Your task to perform on an android device: check battery use Image 0: 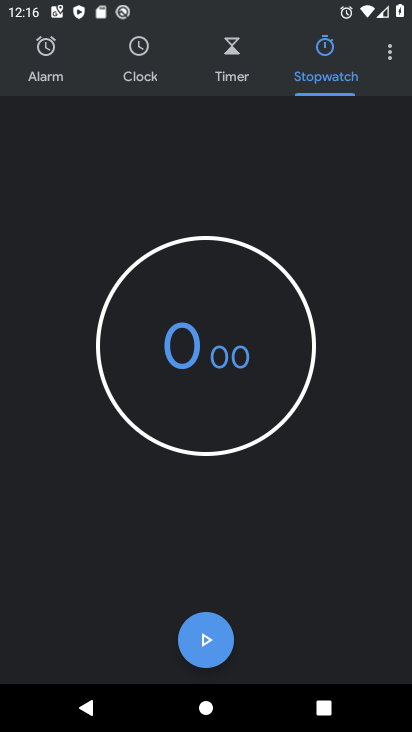
Step 0: press home button
Your task to perform on an android device: check battery use Image 1: 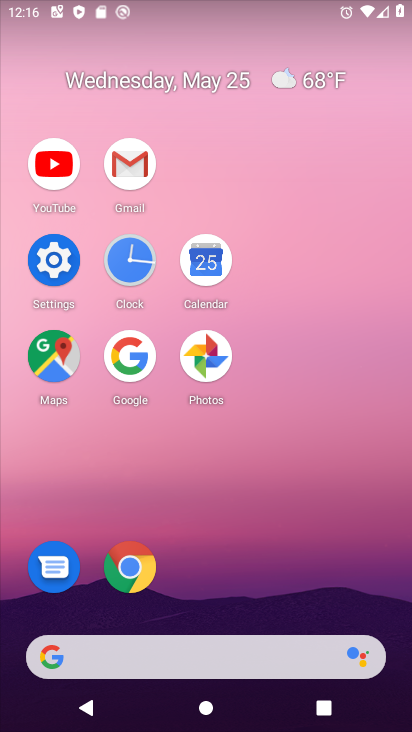
Step 1: click (52, 251)
Your task to perform on an android device: check battery use Image 2: 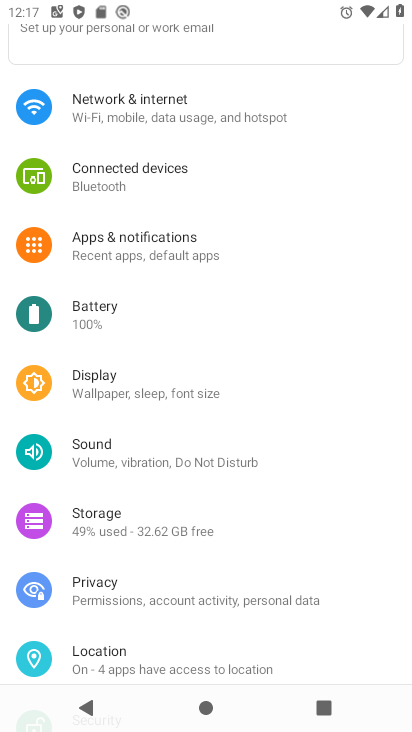
Step 2: drag from (169, 616) to (171, 212)
Your task to perform on an android device: check battery use Image 3: 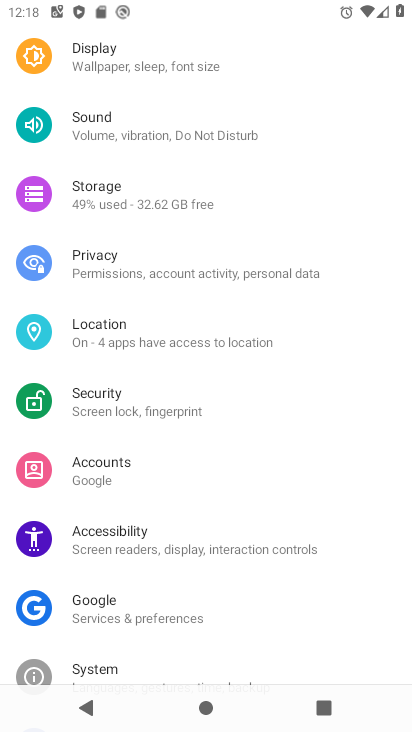
Step 3: drag from (164, 219) to (225, 654)
Your task to perform on an android device: check battery use Image 4: 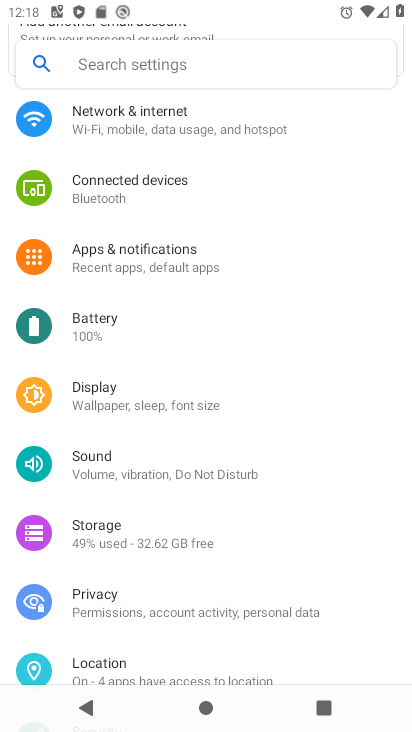
Step 4: click (156, 312)
Your task to perform on an android device: check battery use Image 5: 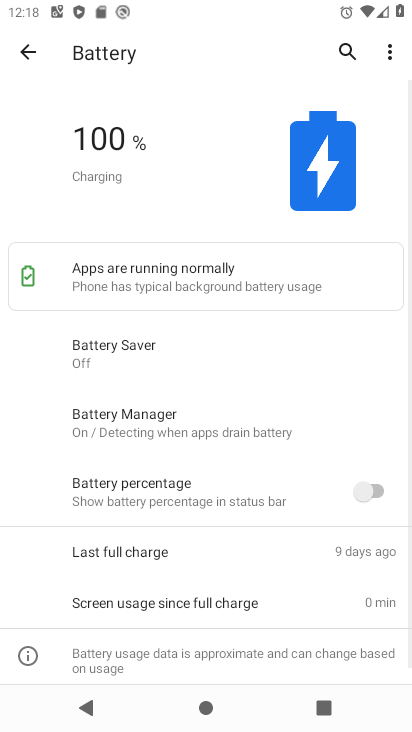
Step 5: click (397, 60)
Your task to perform on an android device: check battery use Image 6: 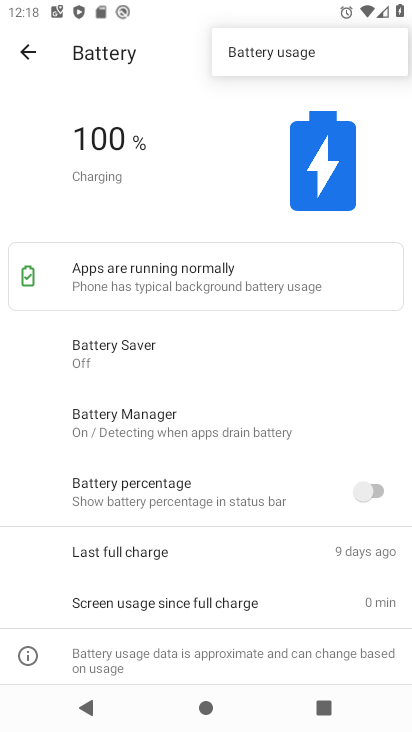
Step 6: click (289, 55)
Your task to perform on an android device: check battery use Image 7: 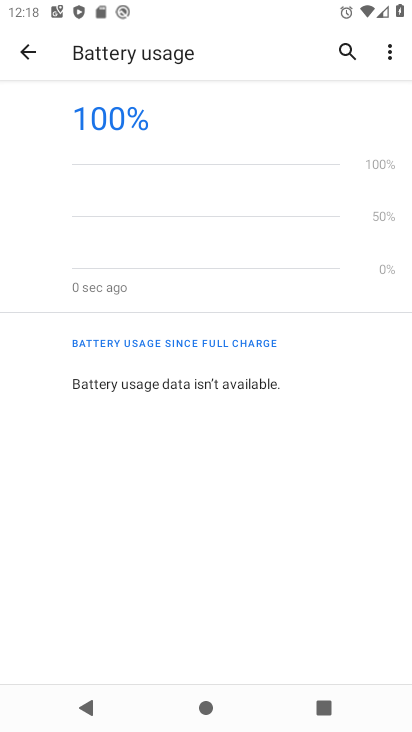
Step 7: task complete